Your task to perform on an android device: Open Youtube and go to "Your channel" Image 0: 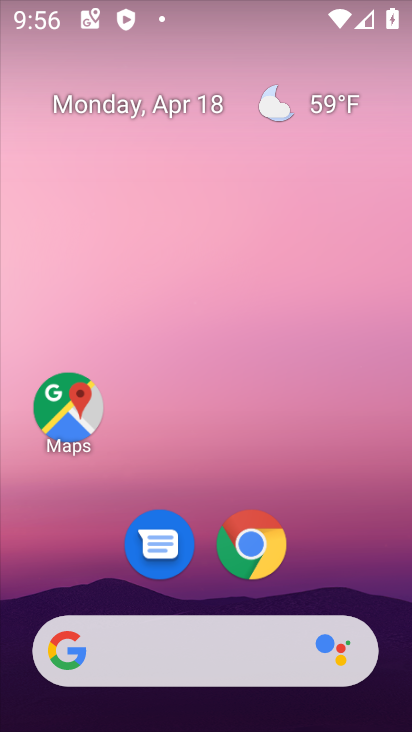
Step 0: drag from (288, 547) to (294, 277)
Your task to perform on an android device: Open Youtube and go to "Your channel" Image 1: 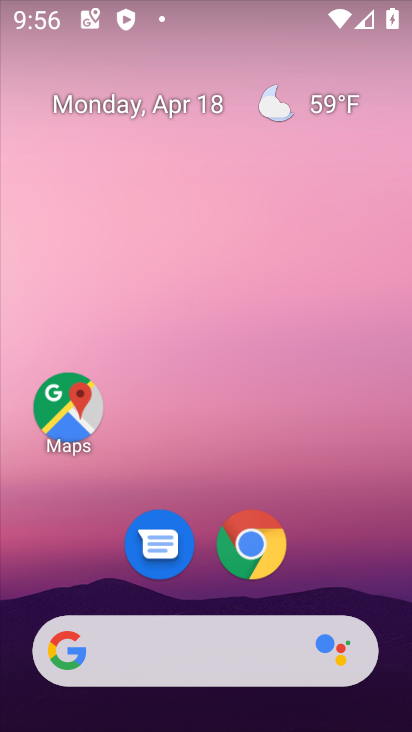
Step 1: drag from (338, 448) to (336, 140)
Your task to perform on an android device: Open Youtube and go to "Your channel" Image 2: 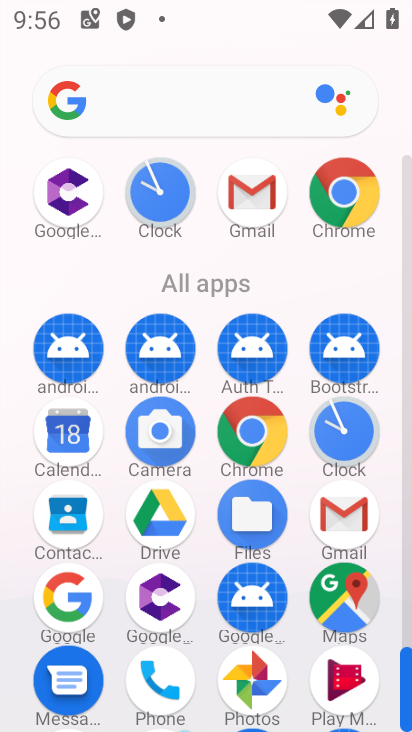
Step 2: drag from (283, 637) to (276, 130)
Your task to perform on an android device: Open Youtube and go to "Your channel" Image 3: 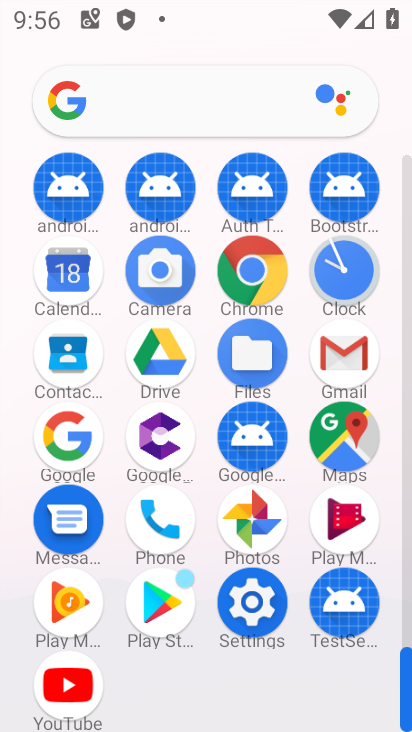
Step 3: click (71, 680)
Your task to perform on an android device: Open Youtube and go to "Your channel" Image 4: 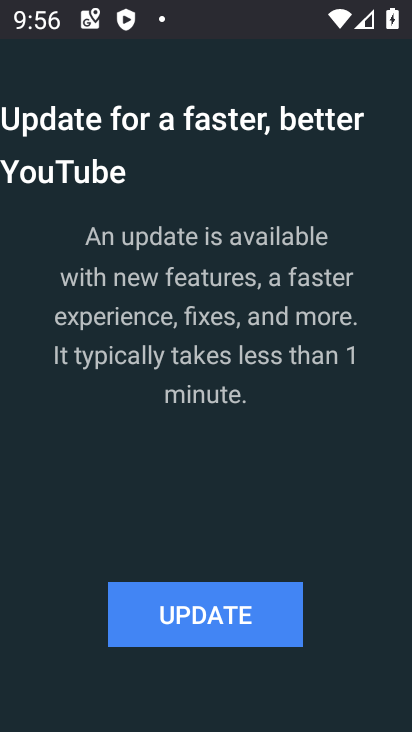
Step 4: click (211, 628)
Your task to perform on an android device: Open Youtube and go to "Your channel" Image 5: 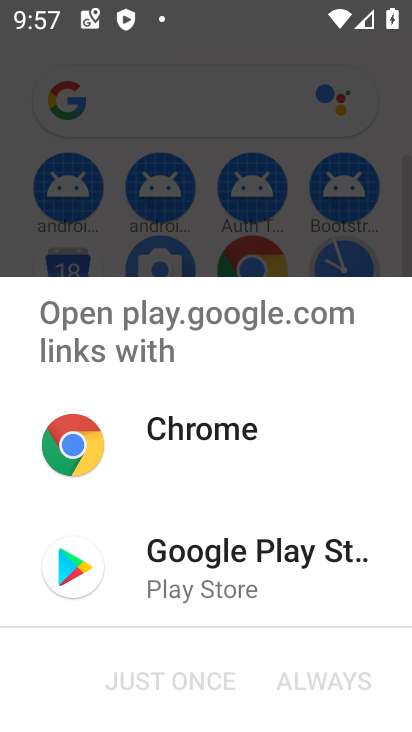
Step 5: click (225, 584)
Your task to perform on an android device: Open Youtube and go to "Your channel" Image 6: 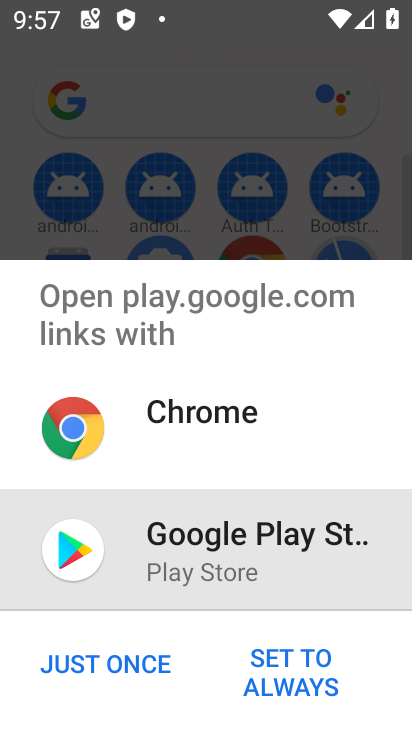
Step 6: task complete